Your task to perform on an android device: empty trash in the gmail app Image 0: 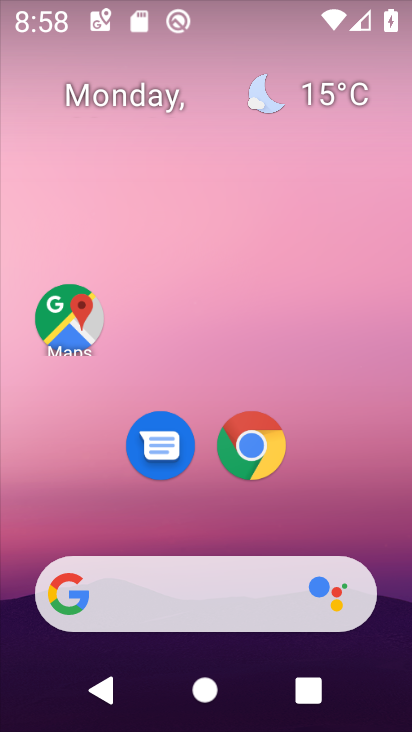
Step 0: drag from (205, 532) to (212, 156)
Your task to perform on an android device: empty trash in the gmail app Image 1: 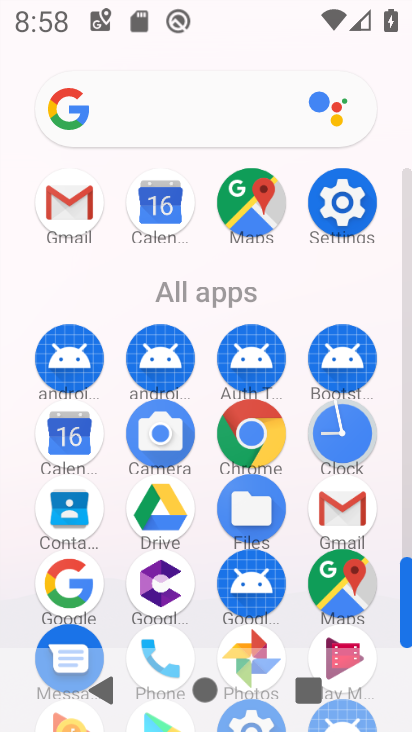
Step 1: click (344, 499)
Your task to perform on an android device: empty trash in the gmail app Image 2: 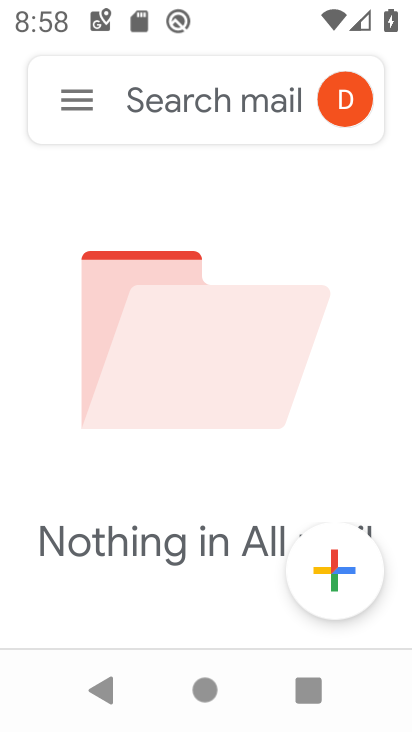
Step 2: click (83, 97)
Your task to perform on an android device: empty trash in the gmail app Image 3: 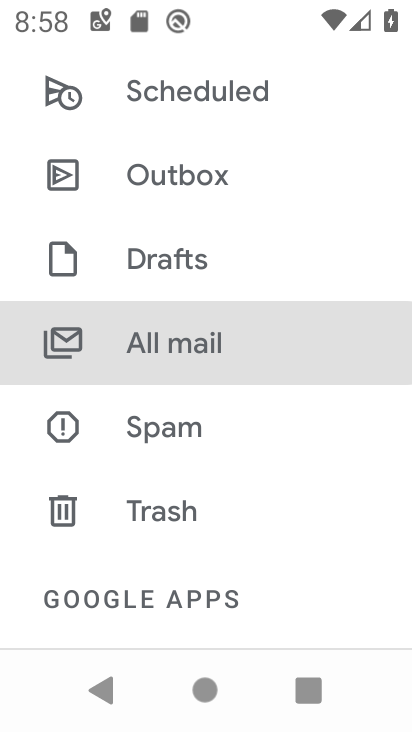
Step 3: click (165, 507)
Your task to perform on an android device: empty trash in the gmail app Image 4: 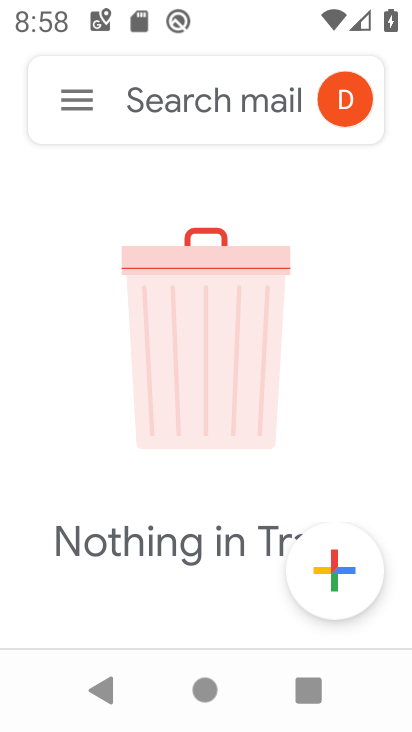
Step 4: task complete